Your task to perform on an android device: Go to Yahoo.com Image 0: 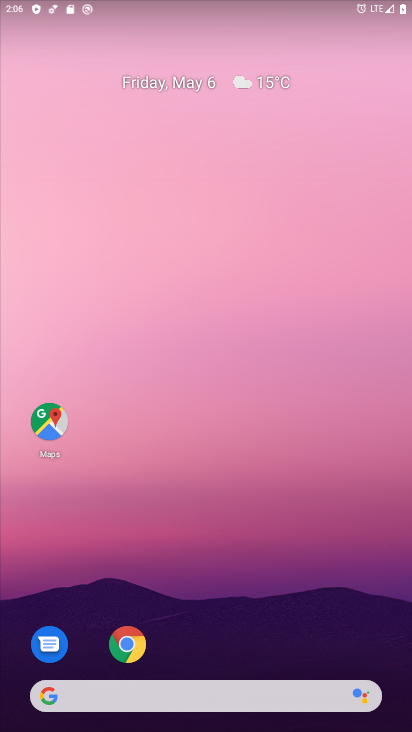
Step 0: drag from (249, 636) to (198, 204)
Your task to perform on an android device: Go to Yahoo.com Image 1: 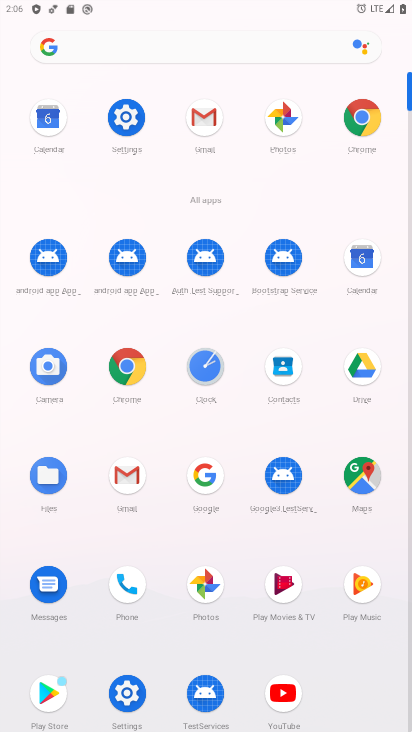
Step 1: click (364, 128)
Your task to perform on an android device: Go to Yahoo.com Image 2: 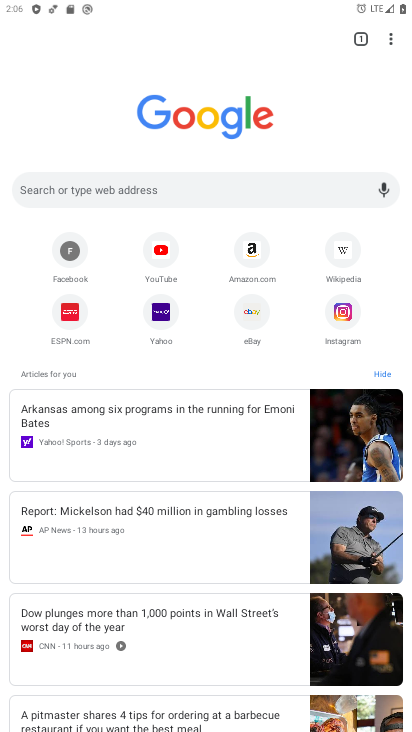
Step 2: click (168, 309)
Your task to perform on an android device: Go to Yahoo.com Image 3: 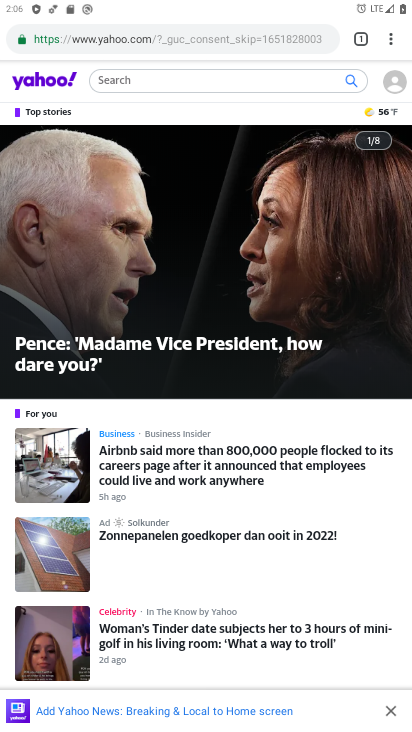
Step 3: task complete